Your task to perform on an android device: toggle location history Image 0: 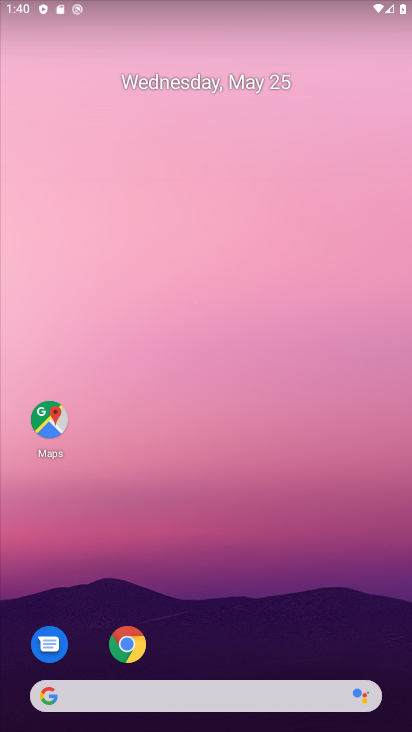
Step 0: drag from (332, 591) to (352, 195)
Your task to perform on an android device: toggle location history Image 1: 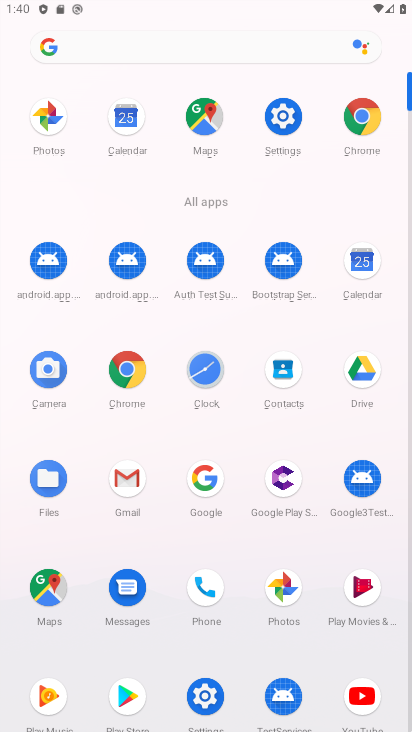
Step 1: click (282, 130)
Your task to perform on an android device: toggle location history Image 2: 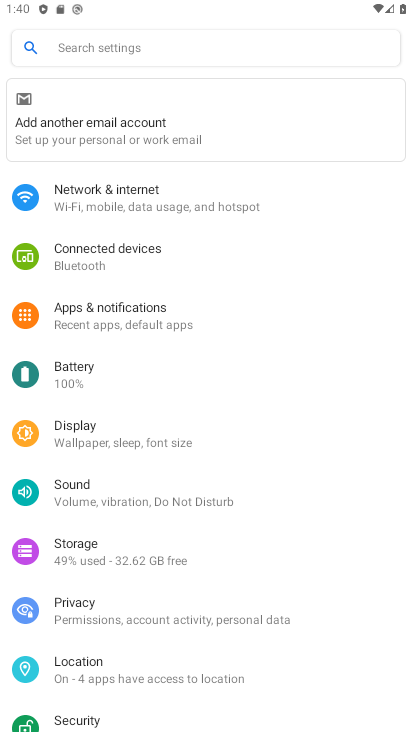
Step 2: drag from (326, 567) to (332, 406)
Your task to perform on an android device: toggle location history Image 3: 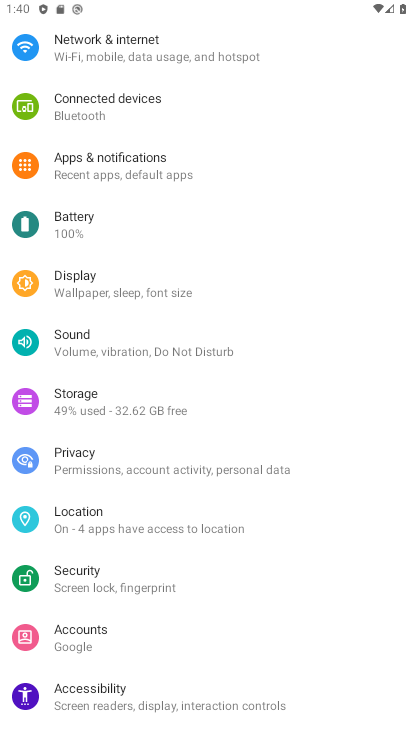
Step 3: drag from (325, 594) to (315, 431)
Your task to perform on an android device: toggle location history Image 4: 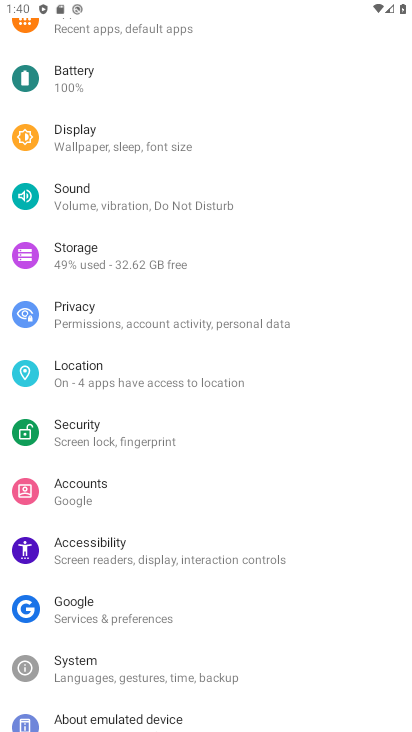
Step 4: drag from (330, 642) to (330, 436)
Your task to perform on an android device: toggle location history Image 5: 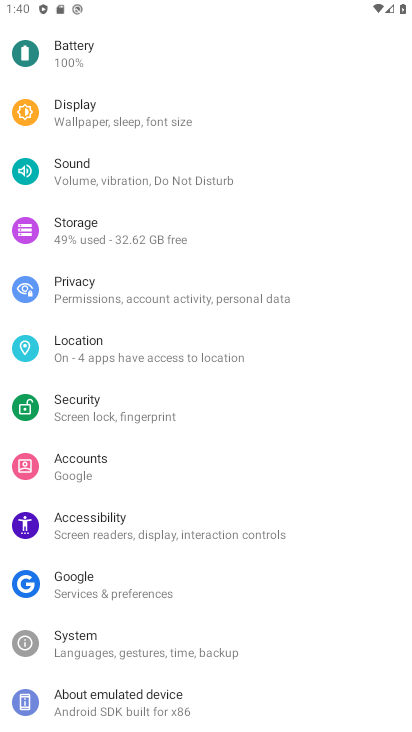
Step 5: drag from (340, 609) to (342, 442)
Your task to perform on an android device: toggle location history Image 6: 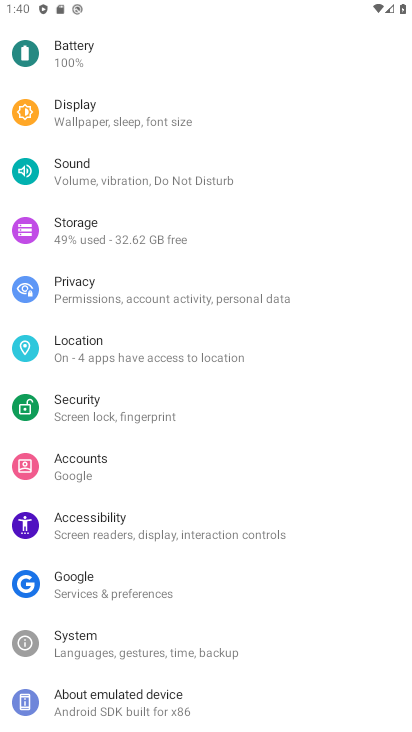
Step 6: drag from (341, 329) to (334, 437)
Your task to perform on an android device: toggle location history Image 7: 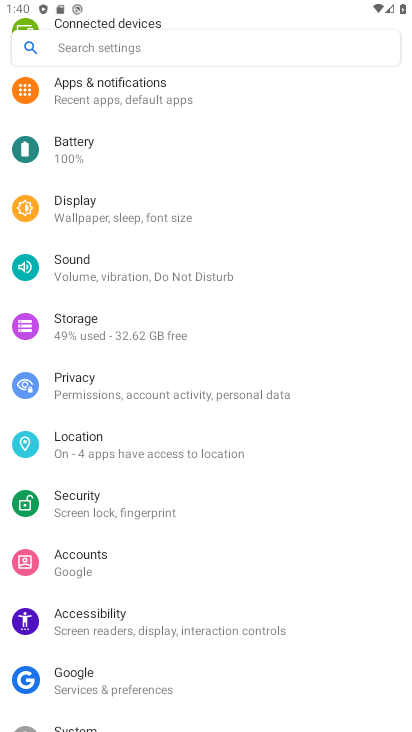
Step 7: drag from (323, 305) to (314, 392)
Your task to perform on an android device: toggle location history Image 8: 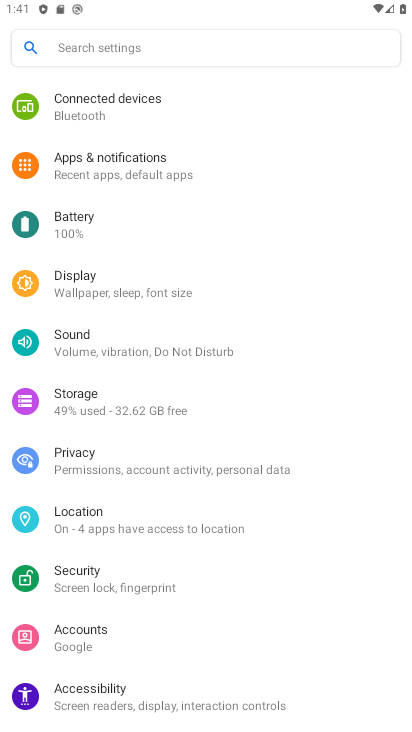
Step 8: drag from (337, 294) to (340, 408)
Your task to perform on an android device: toggle location history Image 9: 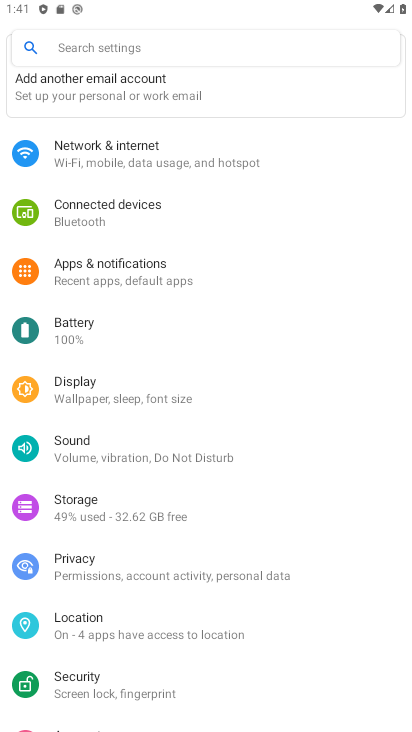
Step 9: drag from (337, 294) to (332, 345)
Your task to perform on an android device: toggle location history Image 10: 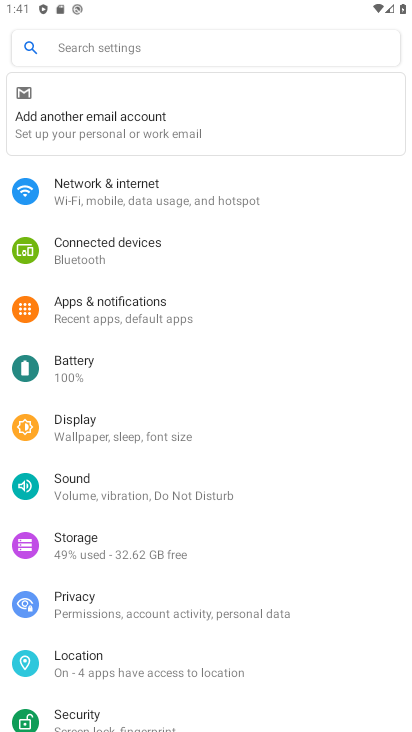
Step 10: drag from (337, 250) to (325, 369)
Your task to perform on an android device: toggle location history Image 11: 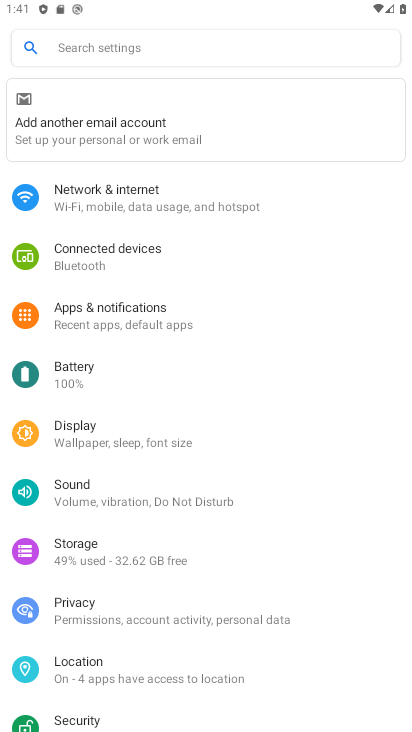
Step 11: drag from (329, 481) to (325, 375)
Your task to perform on an android device: toggle location history Image 12: 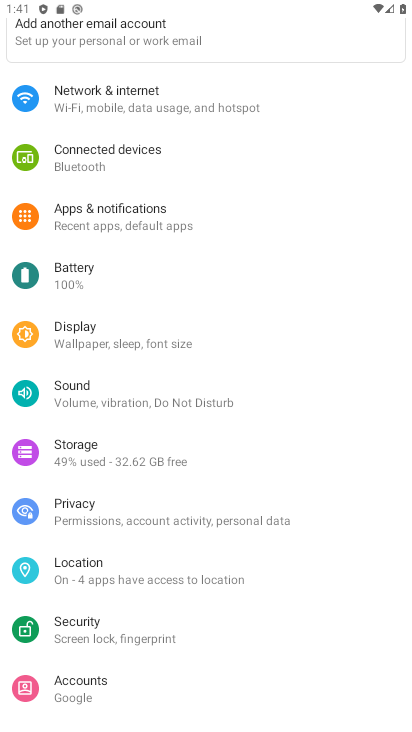
Step 12: click (137, 574)
Your task to perform on an android device: toggle location history Image 13: 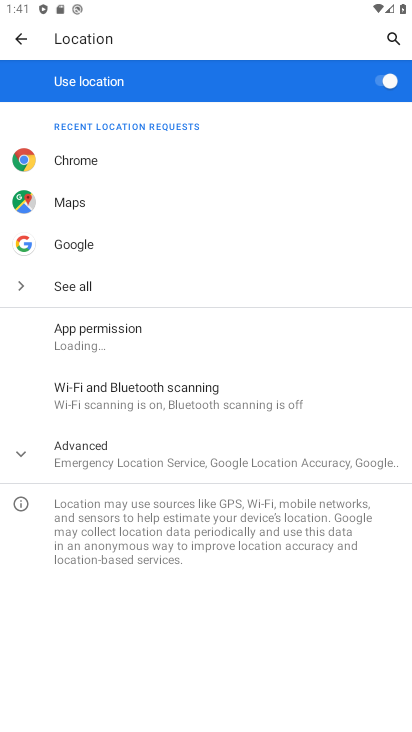
Step 13: click (154, 457)
Your task to perform on an android device: toggle location history Image 14: 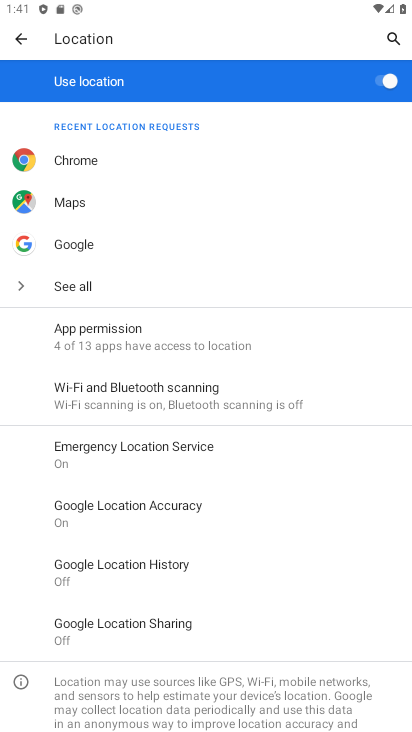
Step 14: click (171, 568)
Your task to perform on an android device: toggle location history Image 15: 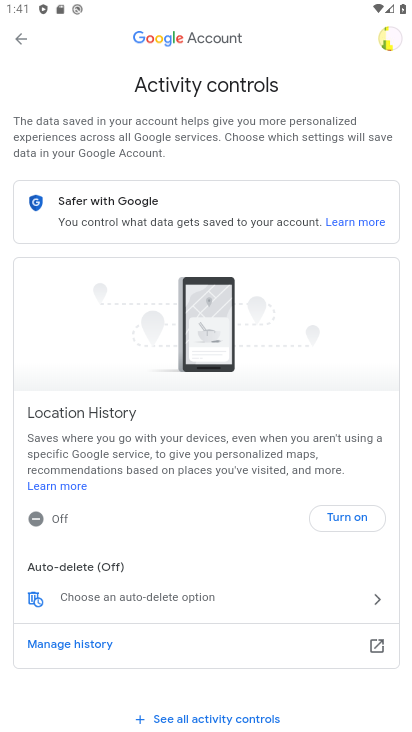
Step 15: click (336, 528)
Your task to perform on an android device: toggle location history Image 16: 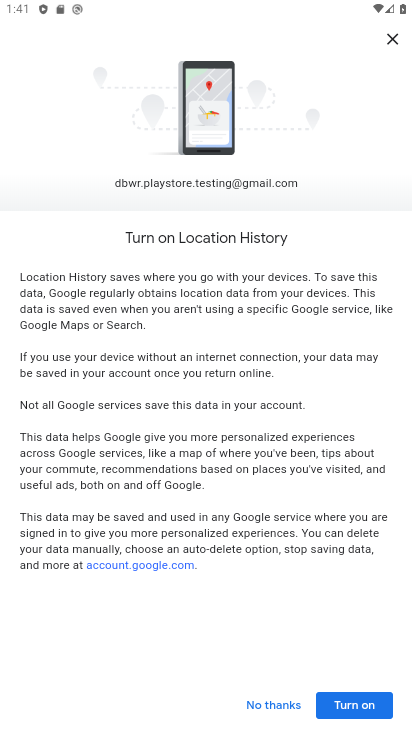
Step 16: click (369, 701)
Your task to perform on an android device: toggle location history Image 17: 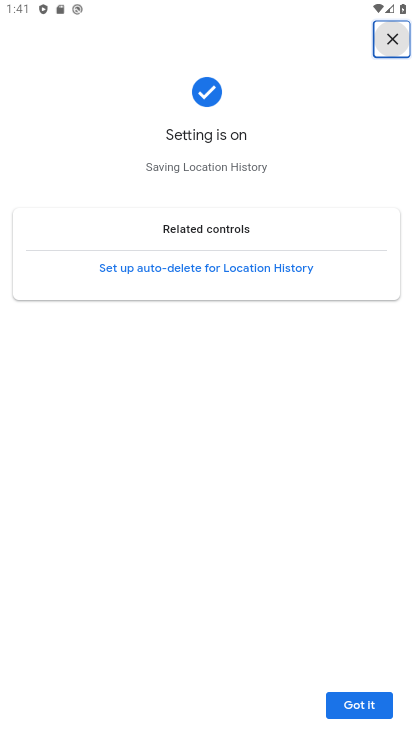
Step 17: task complete